Your task to perform on an android device: Is it going to rain today? Image 0: 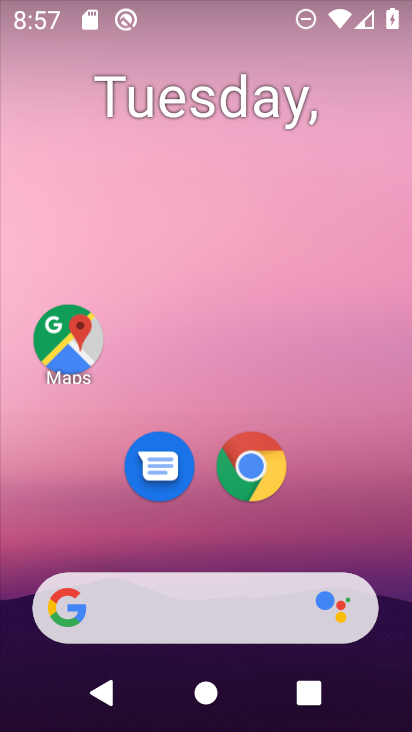
Step 0: click (178, 587)
Your task to perform on an android device: Is it going to rain today? Image 1: 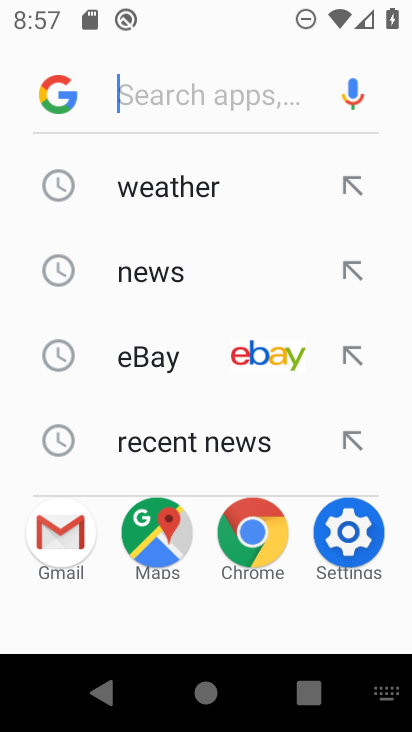
Step 1: click (173, 205)
Your task to perform on an android device: Is it going to rain today? Image 2: 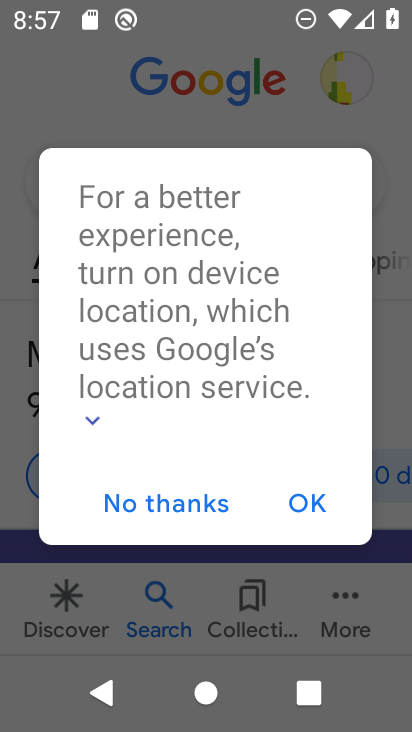
Step 2: click (220, 503)
Your task to perform on an android device: Is it going to rain today? Image 3: 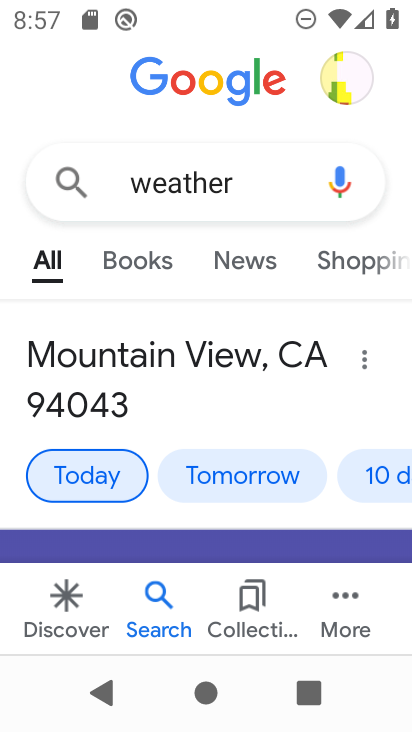
Step 3: task complete